Your task to perform on an android device: Check the weather Image 0: 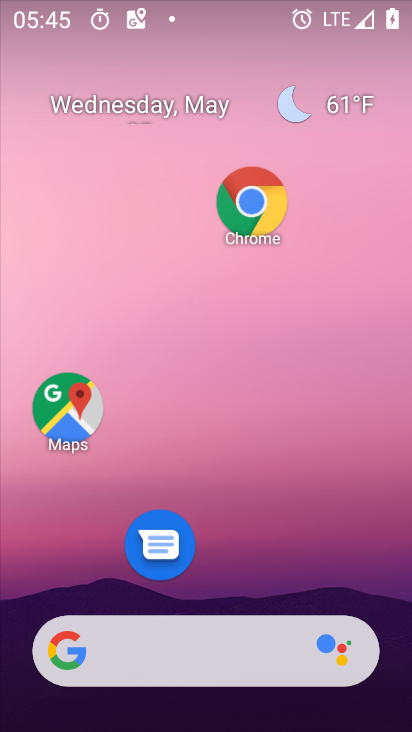
Step 0: drag from (248, 598) to (254, 212)
Your task to perform on an android device: Check the weather Image 1: 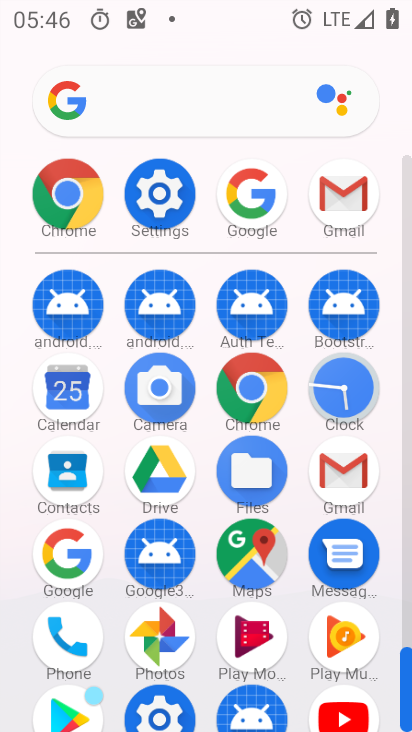
Step 1: click (68, 536)
Your task to perform on an android device: Check the weather Image 2: 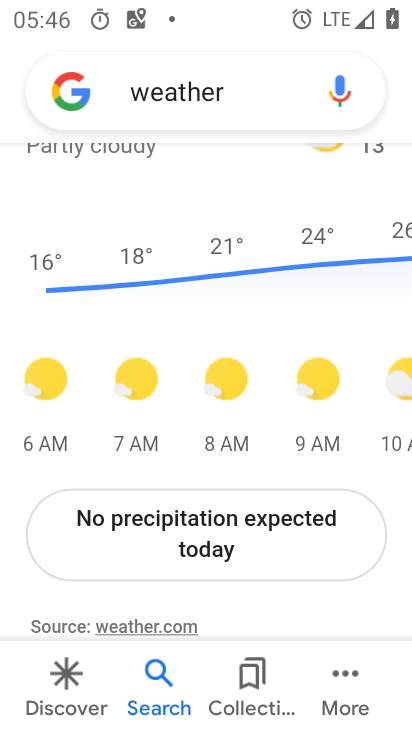
Step 2: task complete